Your task to perform on an android device: Go to Reddit.com Image 0: 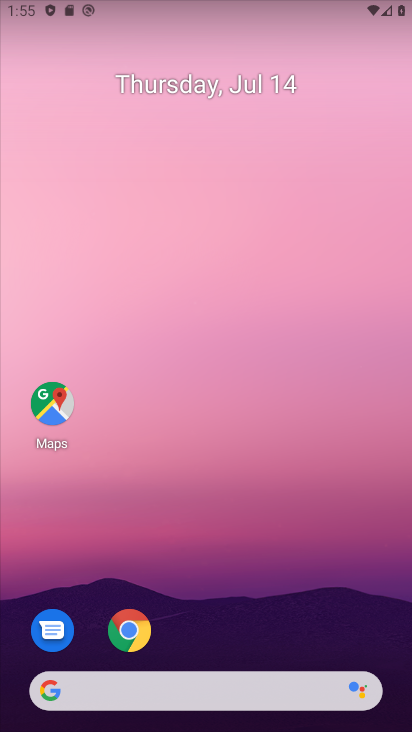
Step 0: press home button
Your task to perform on an android device: Go to Reddit.com Image 1: 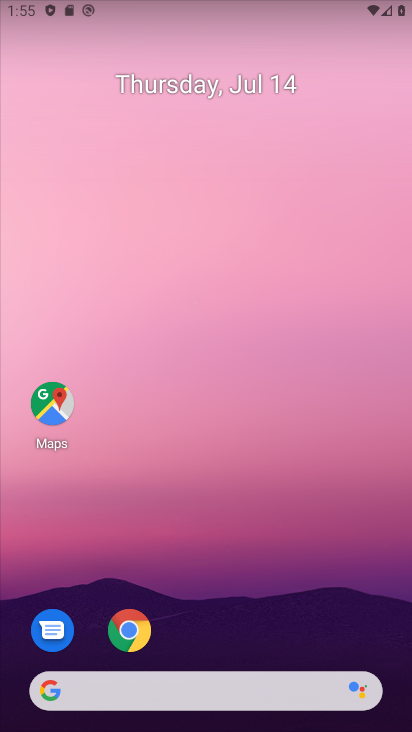
Step 1: click (124, 624)
Your task to perform on an android device: Go to Reddit.com Image 2: 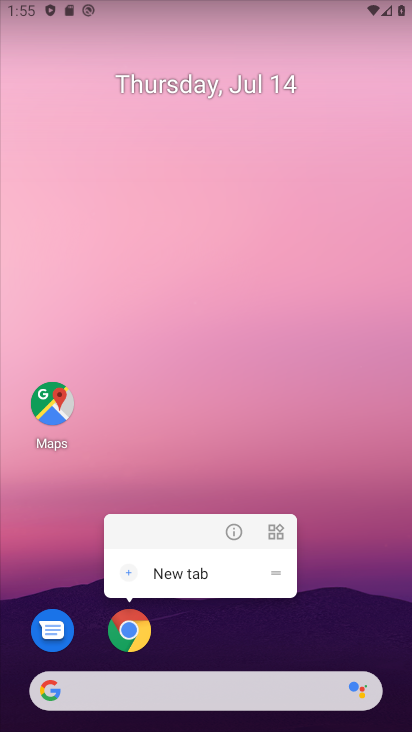
Step 2: click (128, 624)
Your task to perform on an android device: Go to Reddit.com Image 3: 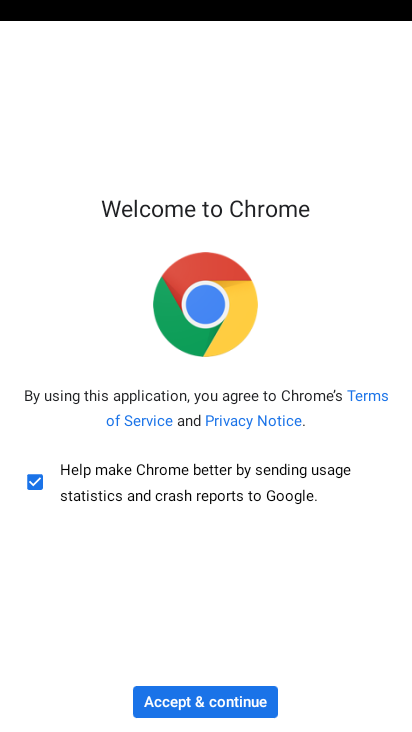
Step 3: click (203, 696)
Your task to perform on an android device: Go to Reddit.com Image 4: 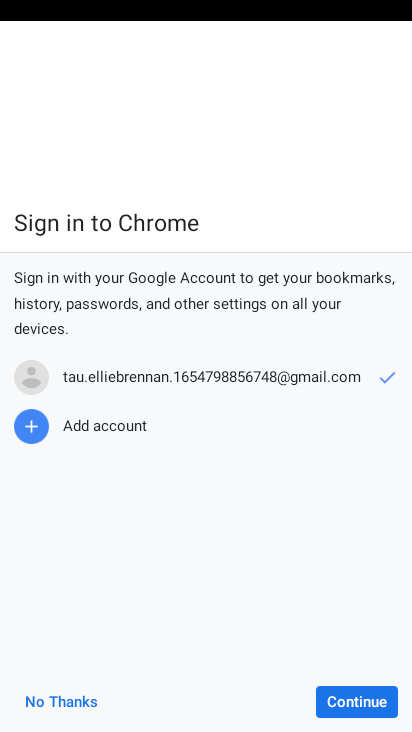
Step 4: click (349, 697)
Your task to perform on an android device: Go to Reddit.com Image 5: 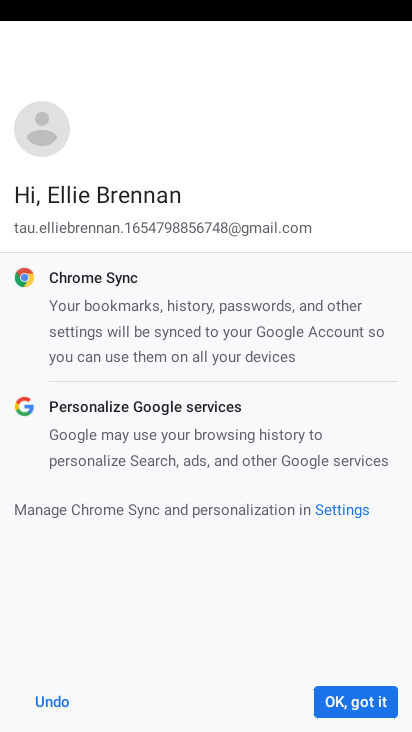
Step 5: click (357, 695)
Your task to perform on an android device: Go to Reddit.com Image 6: 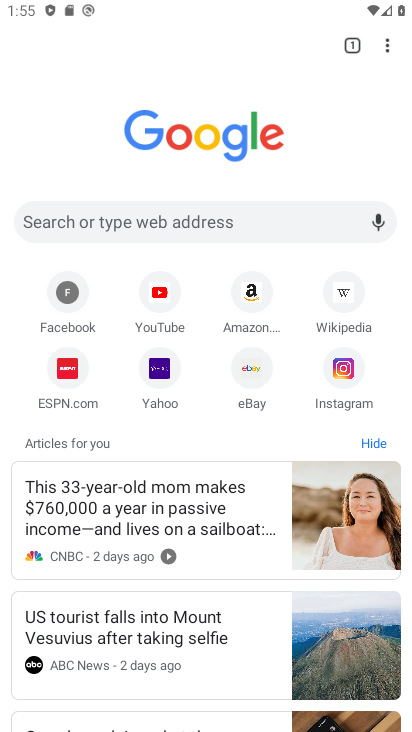
Step 6: click (126, 217)
Your task to perform on an android device: Go to Reddit.com Image 7: 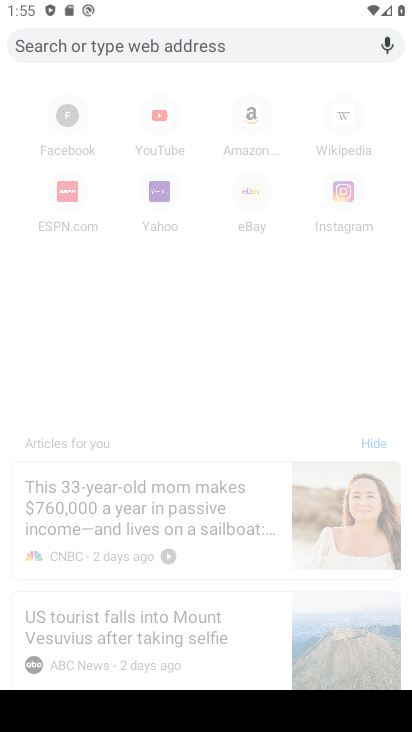
Step 7: type "reddit"
Your task to perform on an android device: Go to Reddit.com Image 8: 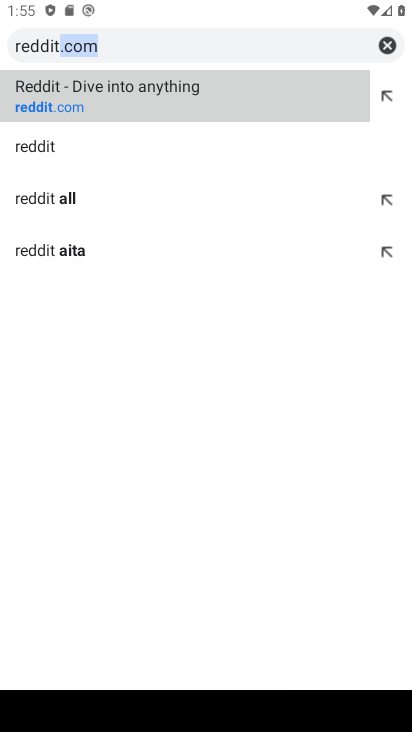
Step 8: click (99, 97)
Your task to perform on an android device: Go to Reddit.com Image 9: 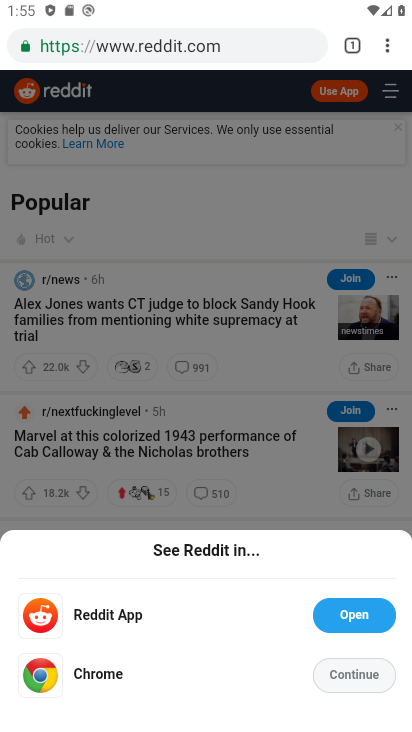
Step 9: click (350, 679)
Your task to perform on an android device: Go to Reddit.com Image 10: 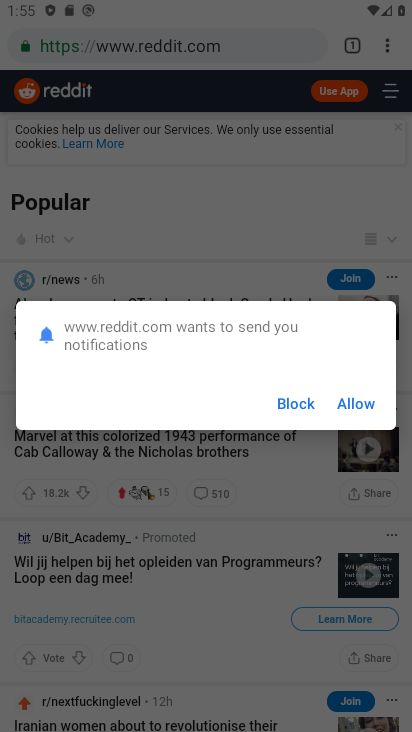
Step 10: click (362, 403)
Your task to perform on an android device: Go to Reddit.com Image 11: 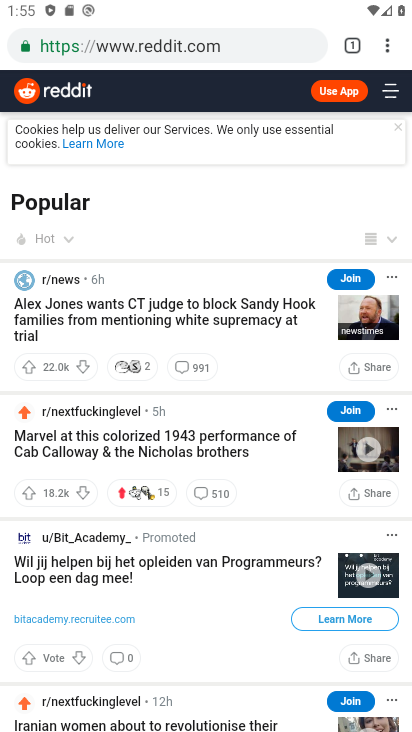
Step 11: task complete